Your task to perform on an android device: Open battery settings Image 0: 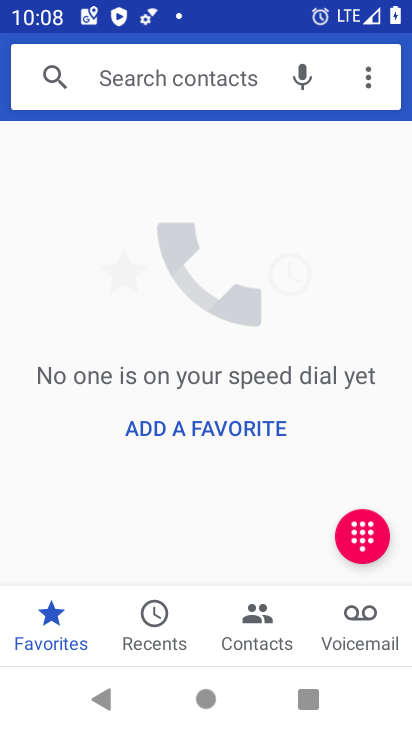
Step 0: press home button
Your task to perform on an android device: Open battery settings Image 1: 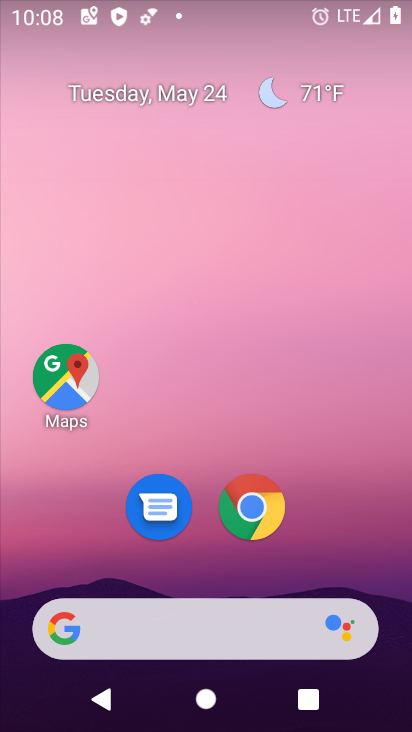
Step 1: drag from (223, 723) to (181, 140)
Your task to perform on an android device: Open battery settings Image 2: 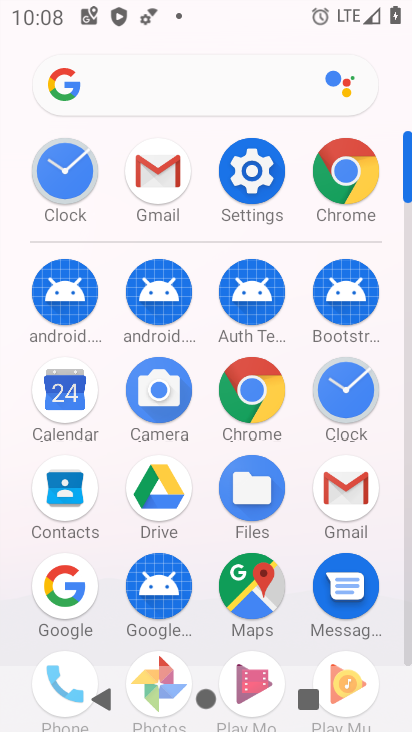
Step 2: click (255, 176)
Your task to perform on an android device: Open battery settings Image 3: 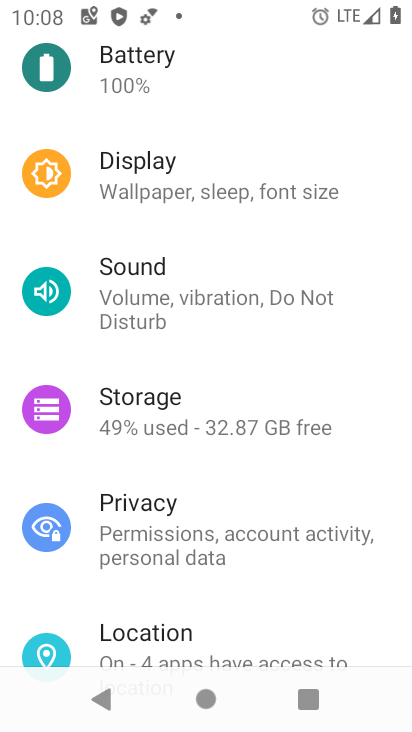
Step 3: drag from (212, 140) to (231, 471)
Your task to perform on an android device: Open battery settings Image 4: 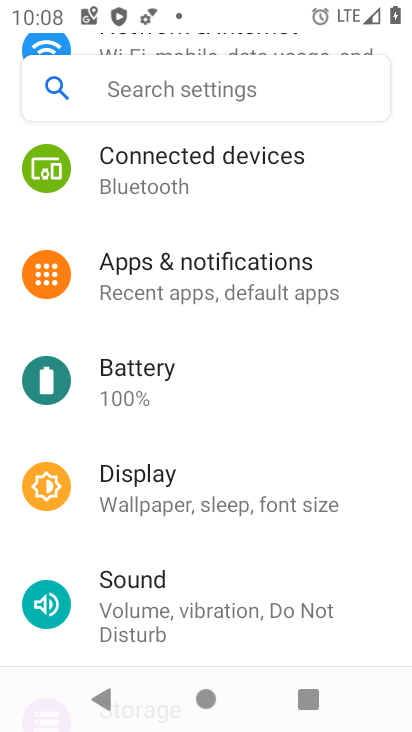
Step 4: click (127, 374)
Your task to perform on an android device: Open battery settings Image 5: 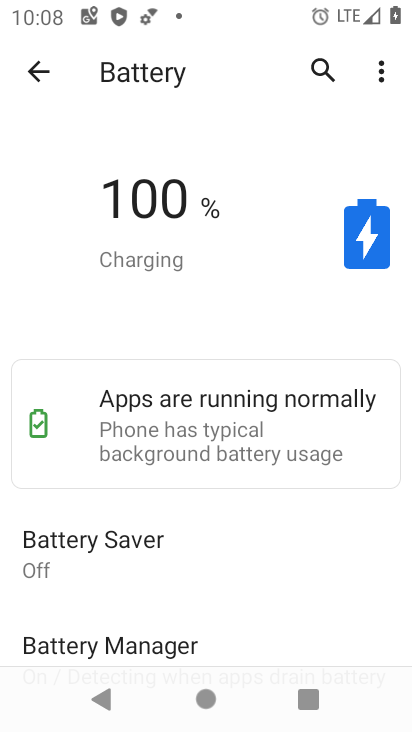
Step 5: task complete